Your task to perform on an android device: read, delete, or share a saved page in the chrome app Image 0: 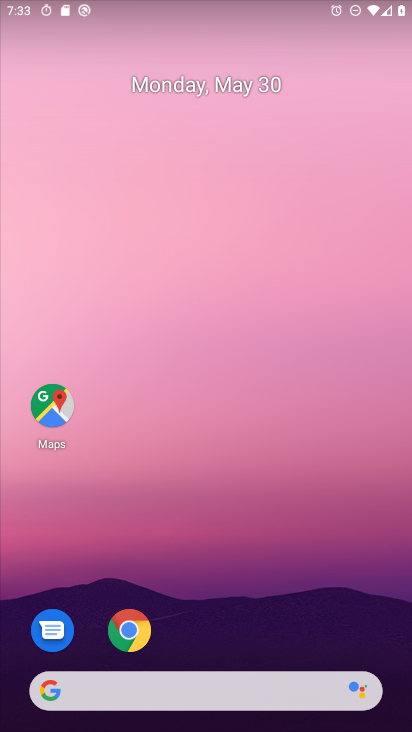
Step 0: drag from (335, 644) to (266, 33)
Your task to perform on an android device: read, delete, or share a saved page in the chrome app Image 1: 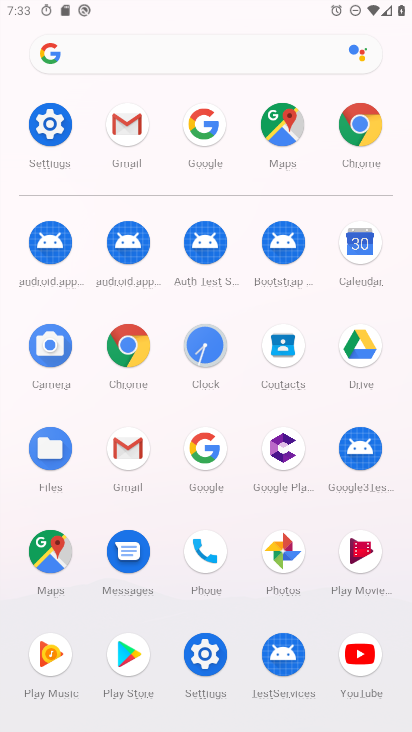
Step 1: click (355, 121)
Your task to perform on an android device: read, delete, or share a saved page in the chrome app Image 2: 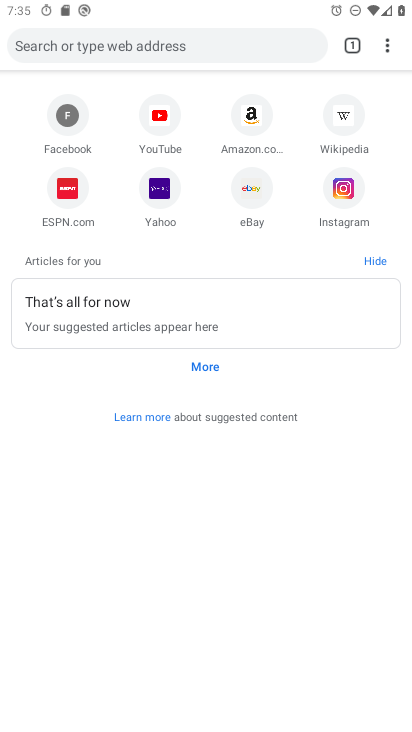
Step 2: task complete